Your task to perform on an android device: change notification settings in the gmail app Image 0: 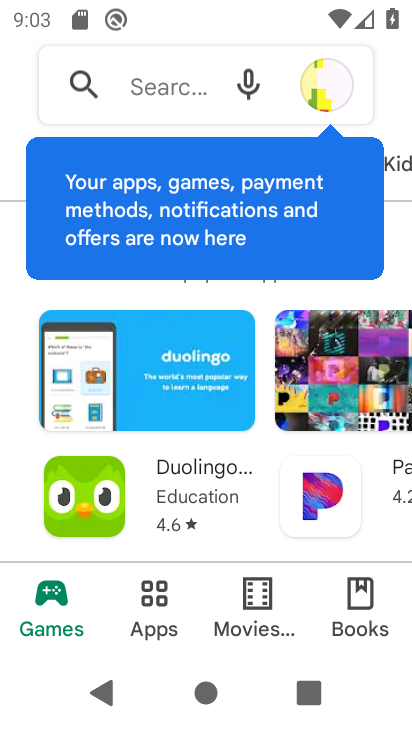
Step 0: press home button
Your task to perform on an android device: change notification settings in the gmail app Image 1: 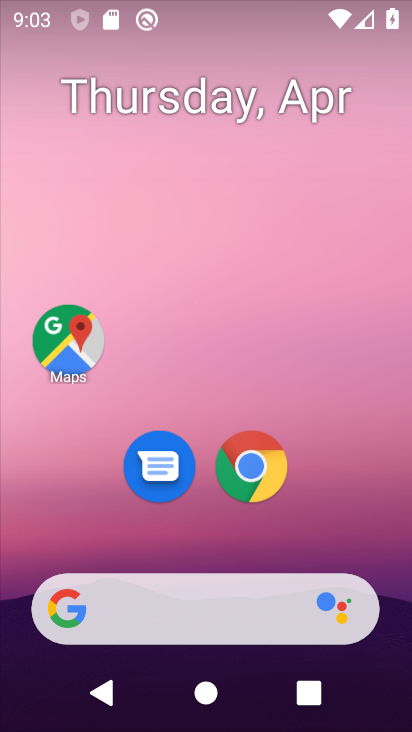
Step 1: drag from (354, 488) to (354, 89)
Your task to perform on an android device: change notification settings in the gmail app Image 2: 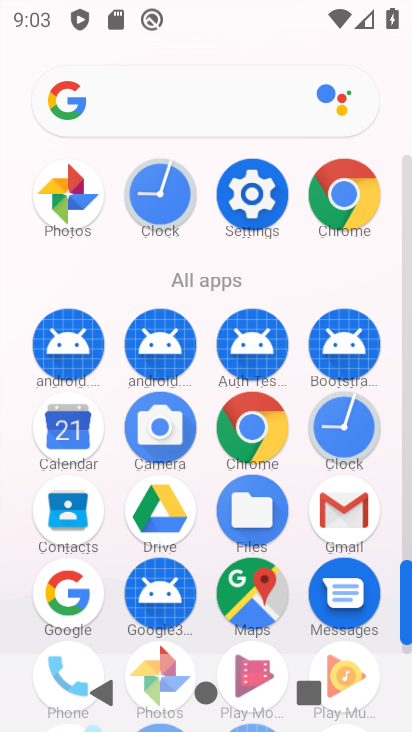
Step 2: click (253, 184)
Your task to perform on an android device: change notification settings in the gmail app Image 3: 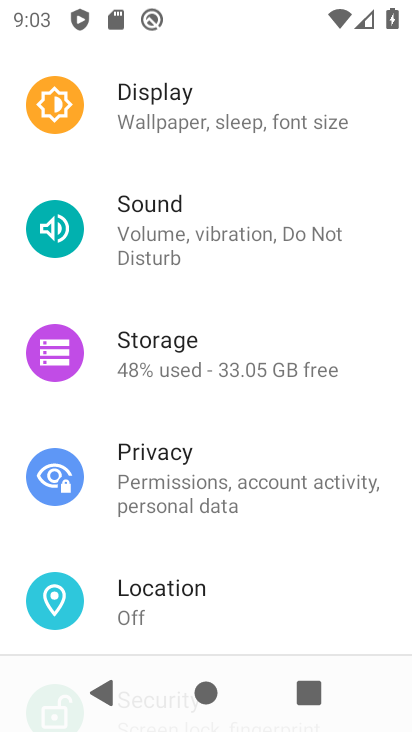
Step 3: drag from (274, 178) to (253, 524)
Your task to perform on an android device: change notification settings in the gmail app Image 4: 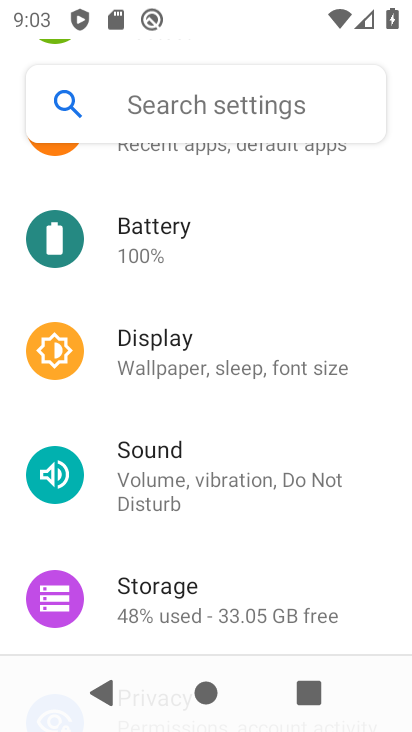
Step 4: drag from (247, 267) to (249, 572)
Your task to perform on an android device: change notification settings in the gmail app Image 5: 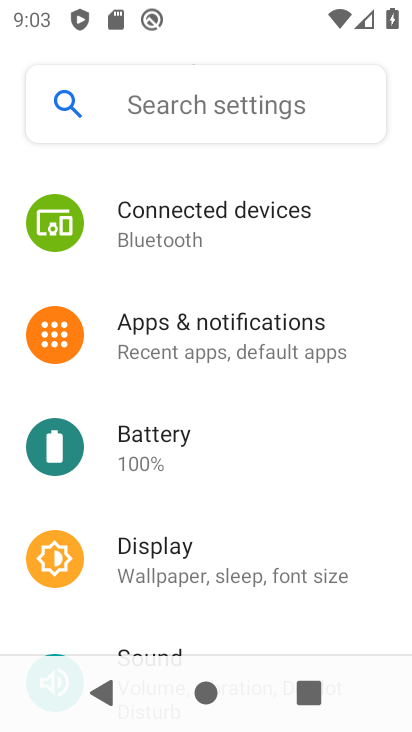
Step 5: click (262, 333)
Your task to perform on an android device: change notification settings in the gmail app Image 6: 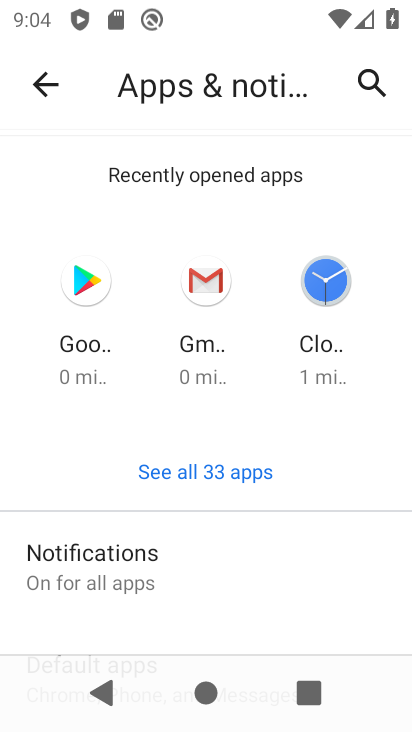
Step 6: click (215, 282)
Your task to perform on an android device: change notification settings in the gmail app Image 7: 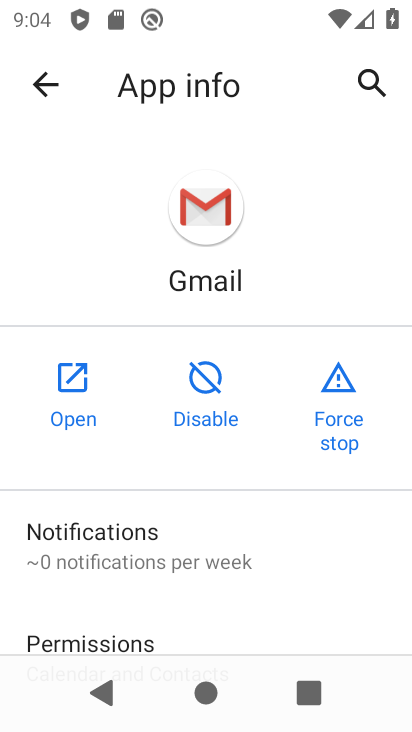
Step 7: click (115, 544)
Your task to perform on an android device: change notification settings in the gmail app Image 8: 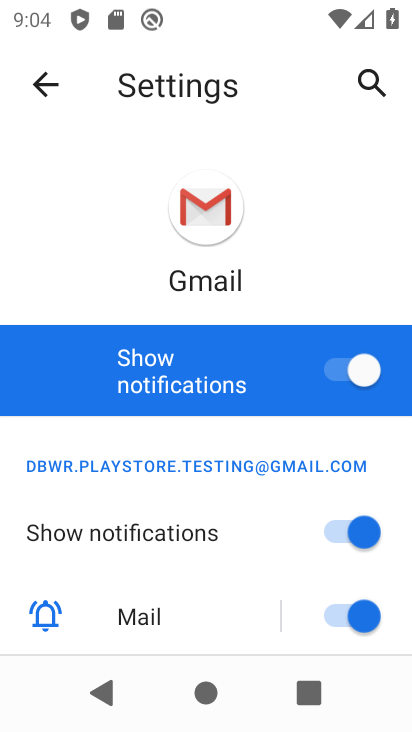
Step 8: click (338, 366)
Your task to perform on an android device: change notification settings in the gmail app Image 9: 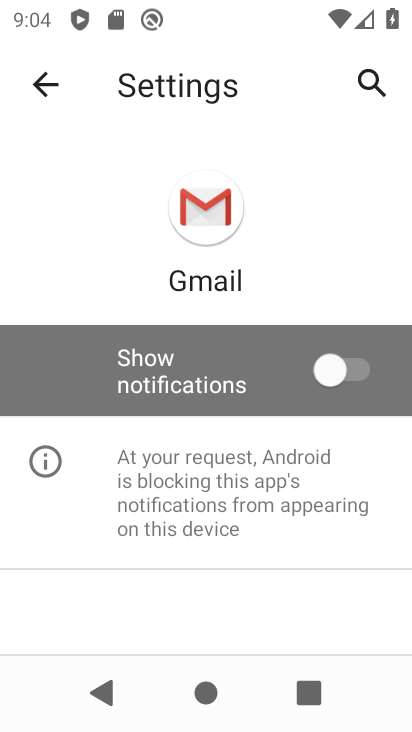
Step 9: task complete